Your task to perform on an android device: toggle javascript in the chrome app Image 0: 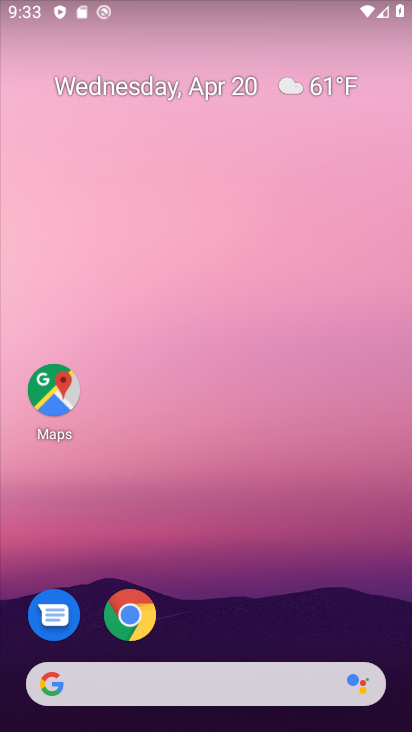
Step 0: click (146, 629)
Your task to perform on an android device: toggle javascript in the chrome app Image 1: 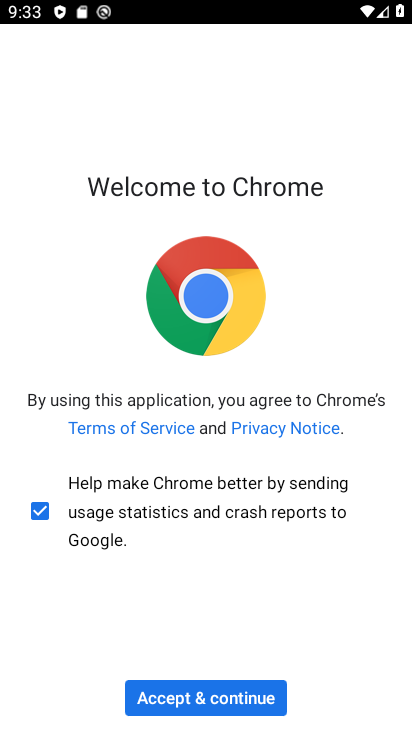
Step 1: click (194, 696)
Your task to perform on an android device: toggle javascript in the chrome app Image 2: 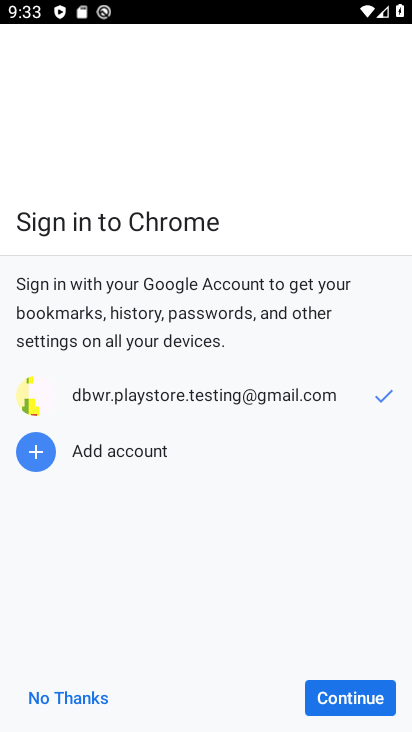
Step 2: click (386, 707)
Your task to perform on an android device: toggle javascript in the chrome app Image 3: 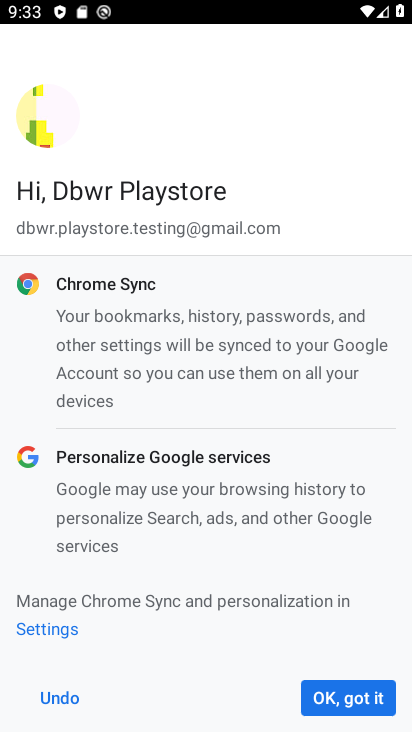
Step 3: click (386, 707)
Your task to perform on an android device: toggle javascript in the chrome app Image 4: 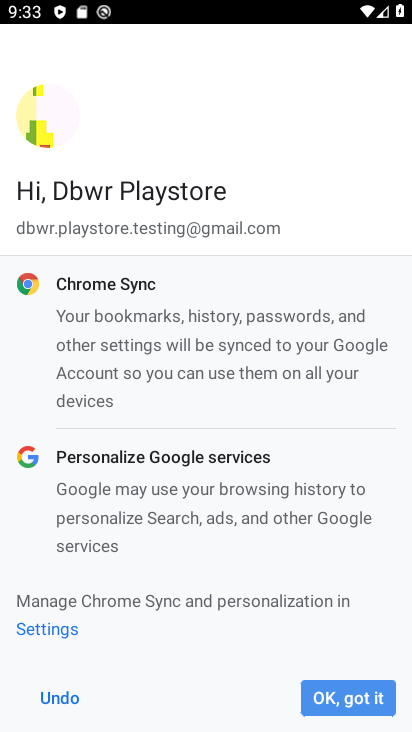
Step 4: click (386, 707)
Your task to perform on an android device: toggle javascript in the chrome app Image 5: 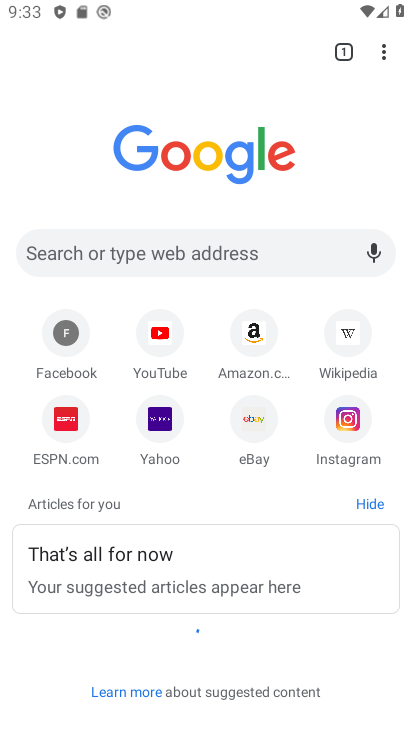
Step 5: drag from (383, 62) to (235, 445)
Your task to perform on an android device: toggle javascript in the chrome app Image 6: 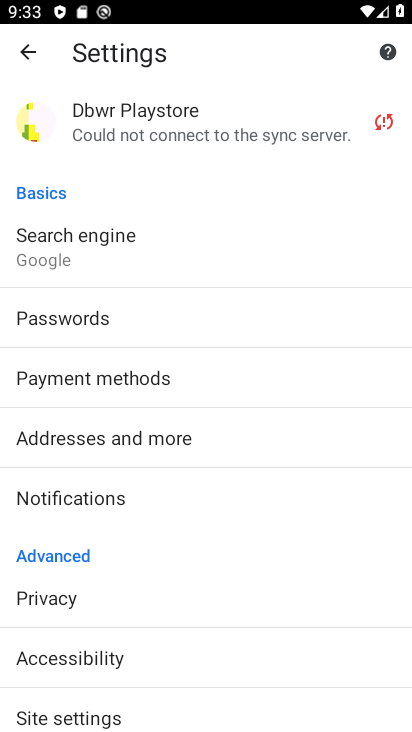
Step 6: drag from (304, 580) to (304, 392)
Your task to perform on an android device: toggle javascript in the chrome app Image 7: 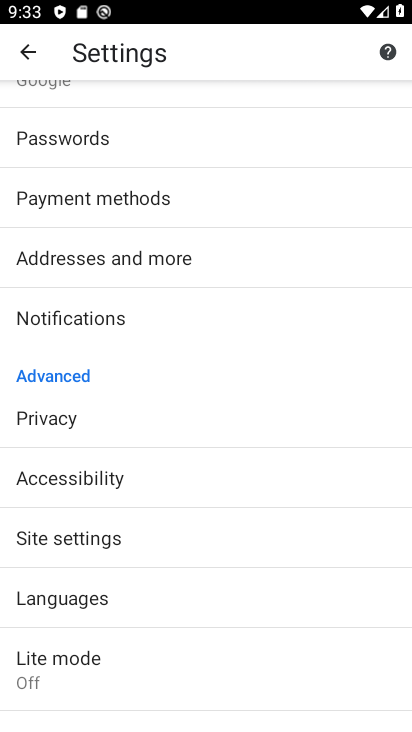
Step 7: click (92, 520)
Your task to perform on an android device: toggle javascript in the chrome app Image 8: 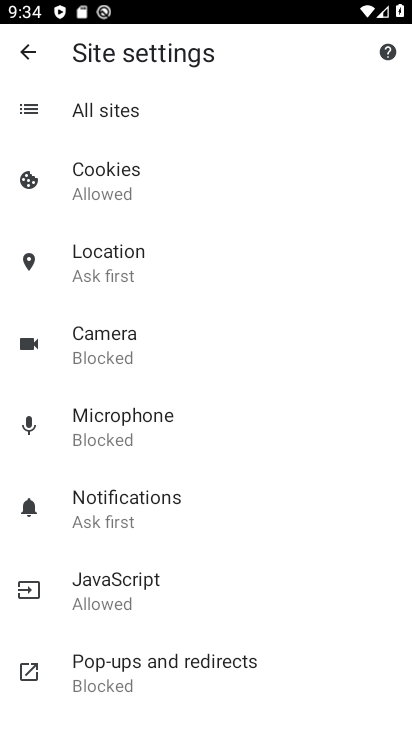
Step 8: click (102, 584)
Your task to perform on an android device: toggle javascript in the chrome app Image 9: 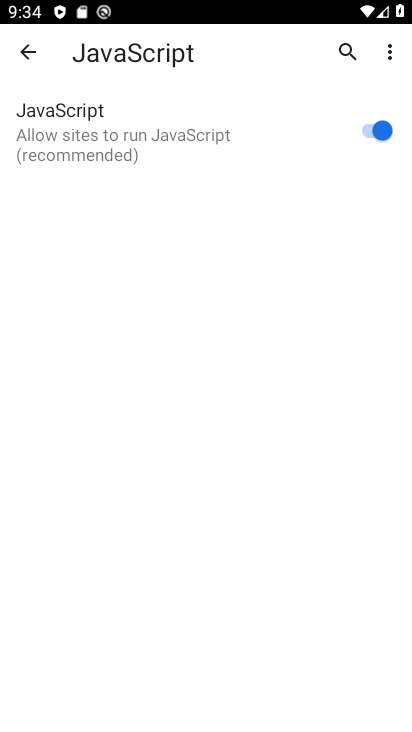
Step 9: click (234, 120)
Your task to perform on an android device: toggle javascript in the chrome app Image 10: 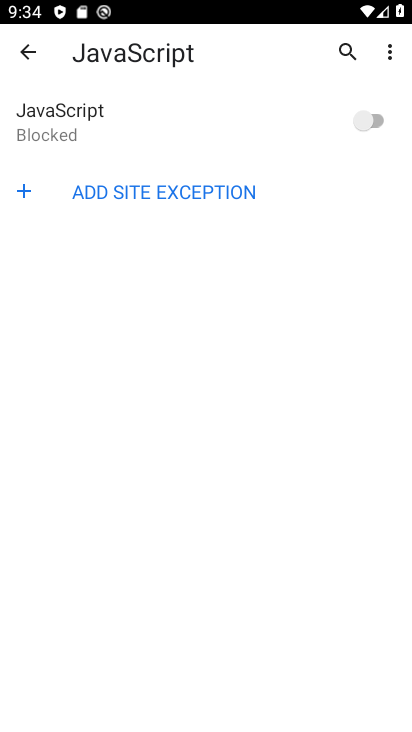
Step 10: task complete